Your task to perform on an android device: Open the web browser Image 0: 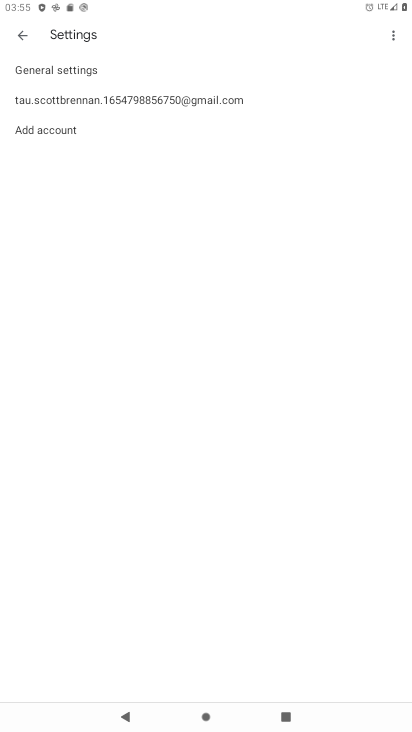
Step 0: press home button
Your task to perform on an android device: Open the web browser Image 1: 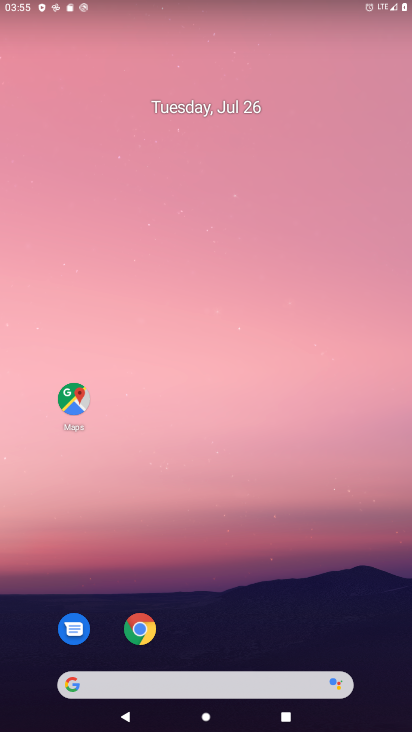
Step 1: drag from (276, 637) to (342, 64)
Your task to perform on an android device: Open the web browser Image 2: 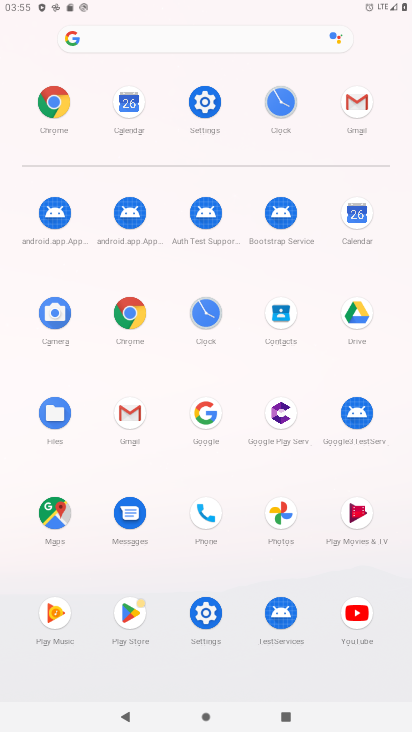
Step 2: click (125, 309)
Your task to perform on an android device: Open the web browser Image 3: 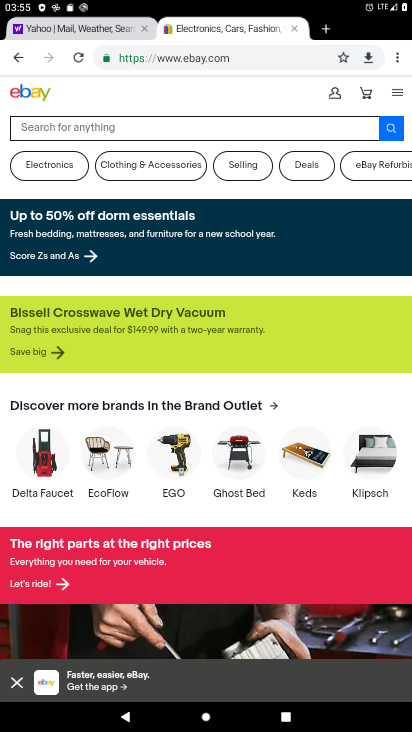
Step 3: click (189, 48)
Your task to perform on an android device: Open the web browser Image 4: 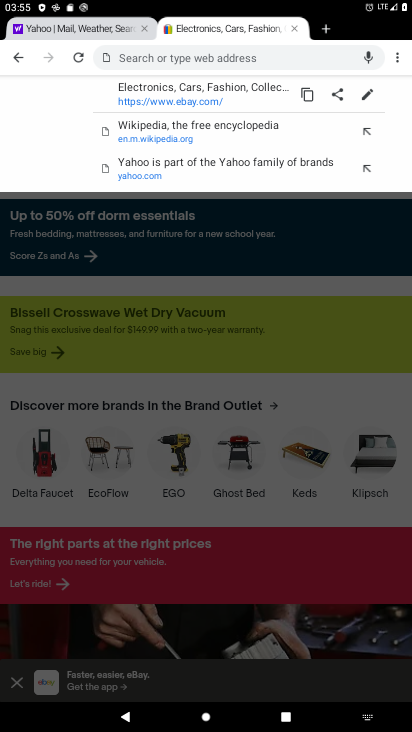
Step 4: type " web browser"
Your task to perform on an android device: Open the web browser Image 5: 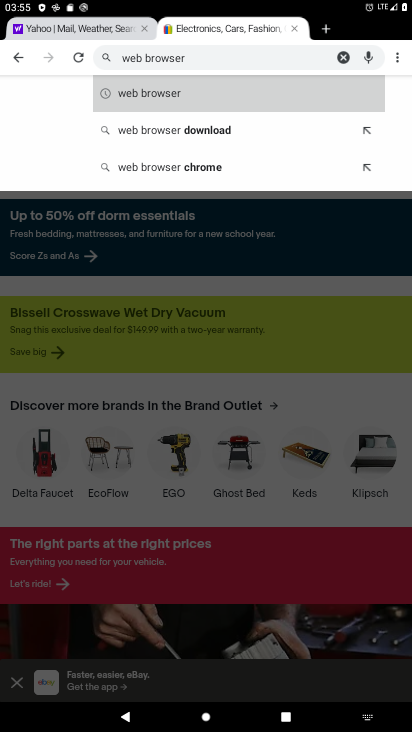
Step 5: click (154, 92)
Your task to perform on an android device: Open the web browser Image 6: 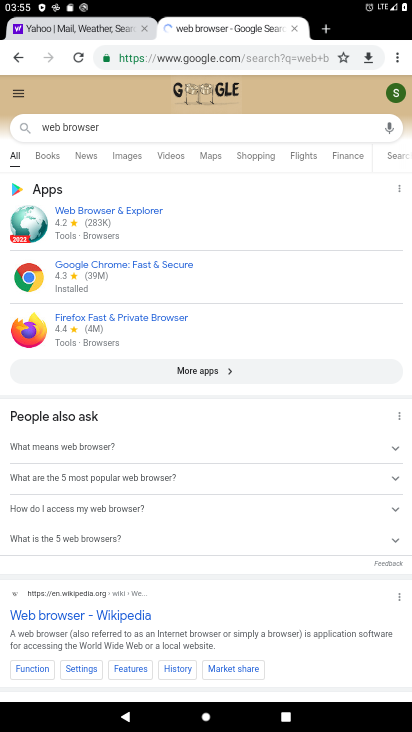
Step 6: task complete